Your task to perform on an android device: turn off improve location accuracy Image 0: 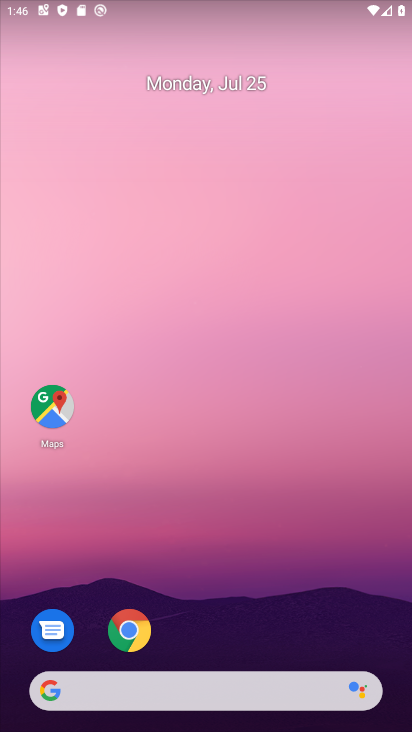
Step 0: drag from (267, 655) to (303, 143)
Your task to perform on an android device: turn off improve location accuracy Image 1: 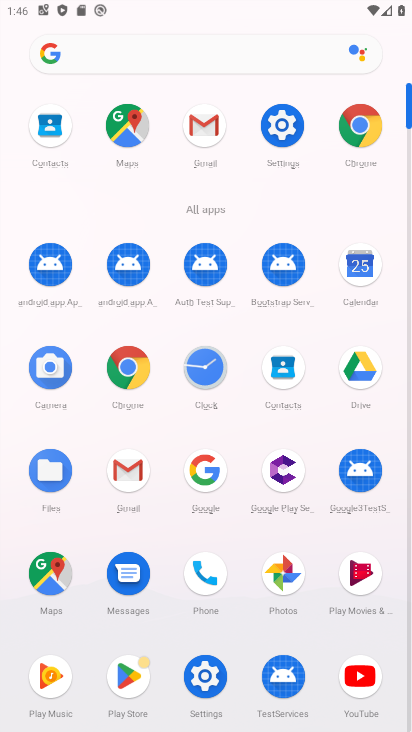
Step 1: click (283, 153)
Your task to perform on an android device: turn off improve location accuracy Image 2: 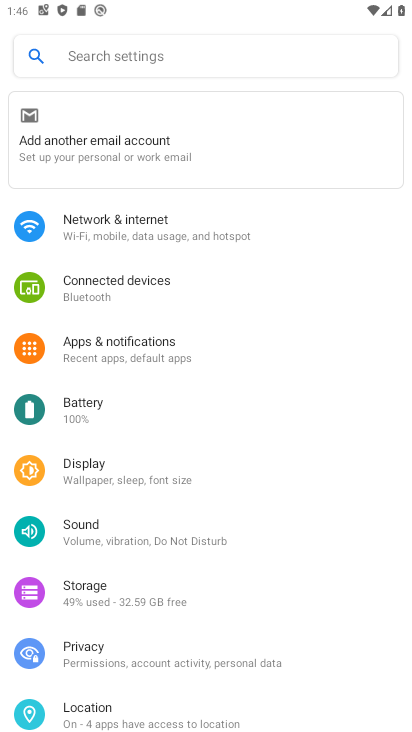
Step 2: click (104, 711)
Your task to perform on an android device: turn off improve location accuracy Image 3: 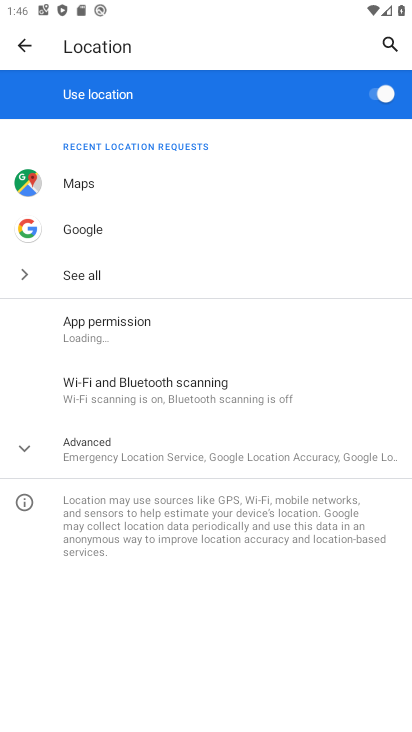
Step 3: click (153, 454)
Your task to perform on an android device: turn off improve location accuracy Image 4: 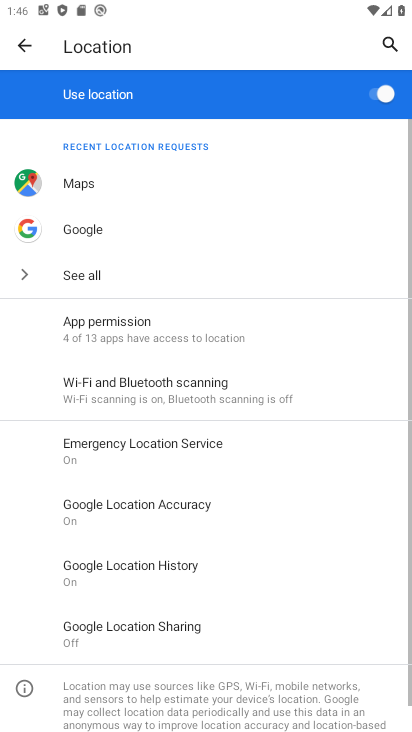
Step 4: click (178, 506)
Your task to perform on an android device: turn off improve location accuracy Image 5: 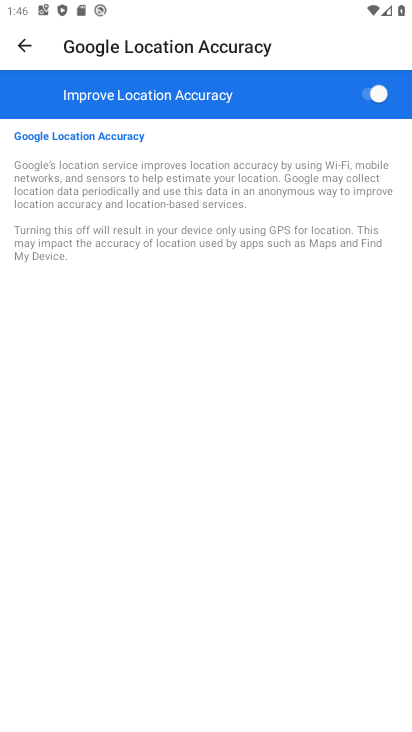
Step 5: click (348, 104)
Your task to perform on an android device: turn off improve location accuracy Image 6: 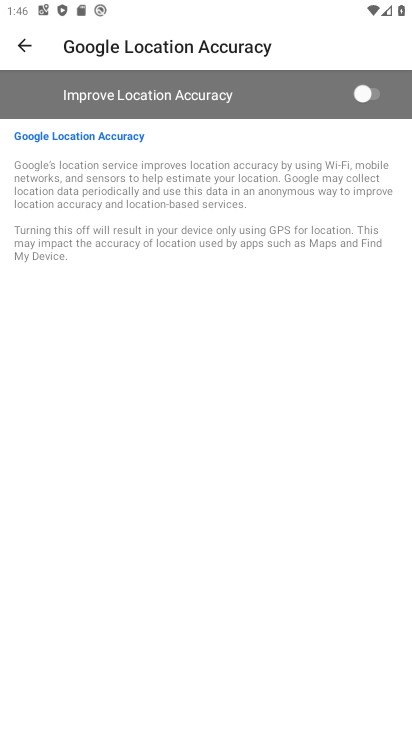
Step 6: task complete